Your task to perform on an android device: read, delete, or share a saved page in the chrome app Image 0: 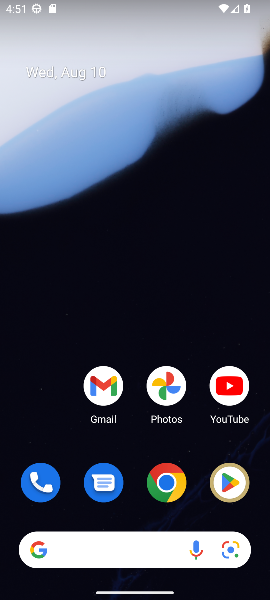
Step 0: click (169, 487)
Your task to perform on an android device: read, delete, or share a saved page in the chrome app Image 1: 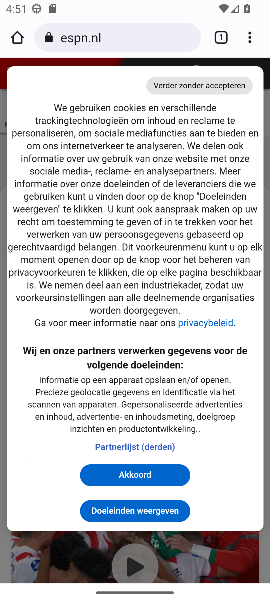
Step 1: click (249, 37)
Your task to perform on an android device: read, delete, or share a saved page in the chrome app Image 2: 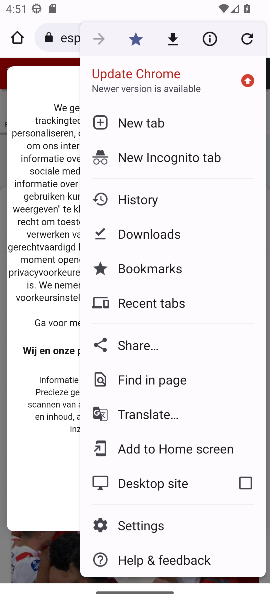
Step 2: click (158, 236)
Your task to perform on an android device: read, delete, or share a saved page in the chrome app Image 3: 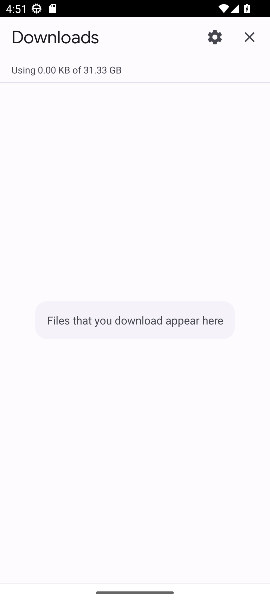
Step 3: task complete